Your task to perform on an android device: check data usage Image 0: 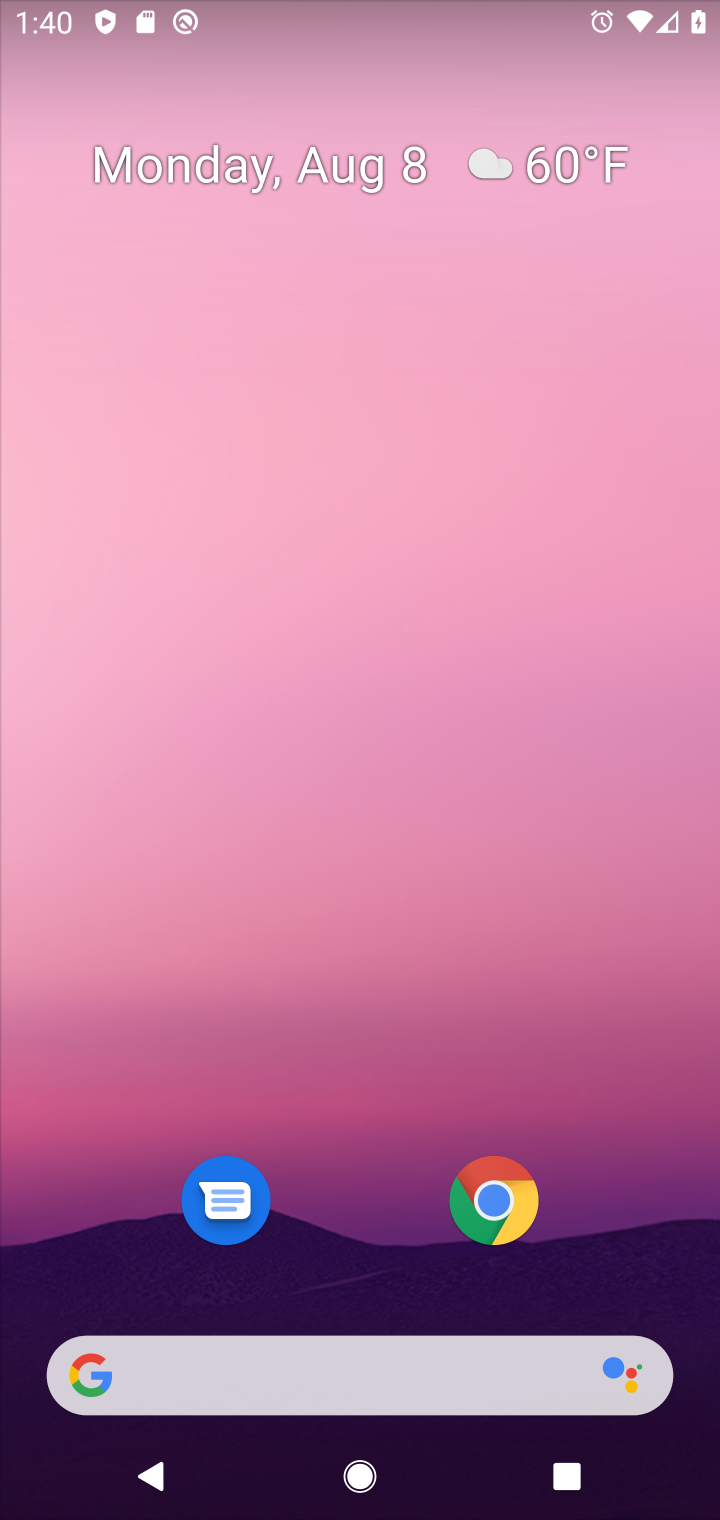
Step 0: press home button
Your task to perform on an android device: check data usage Image 1: 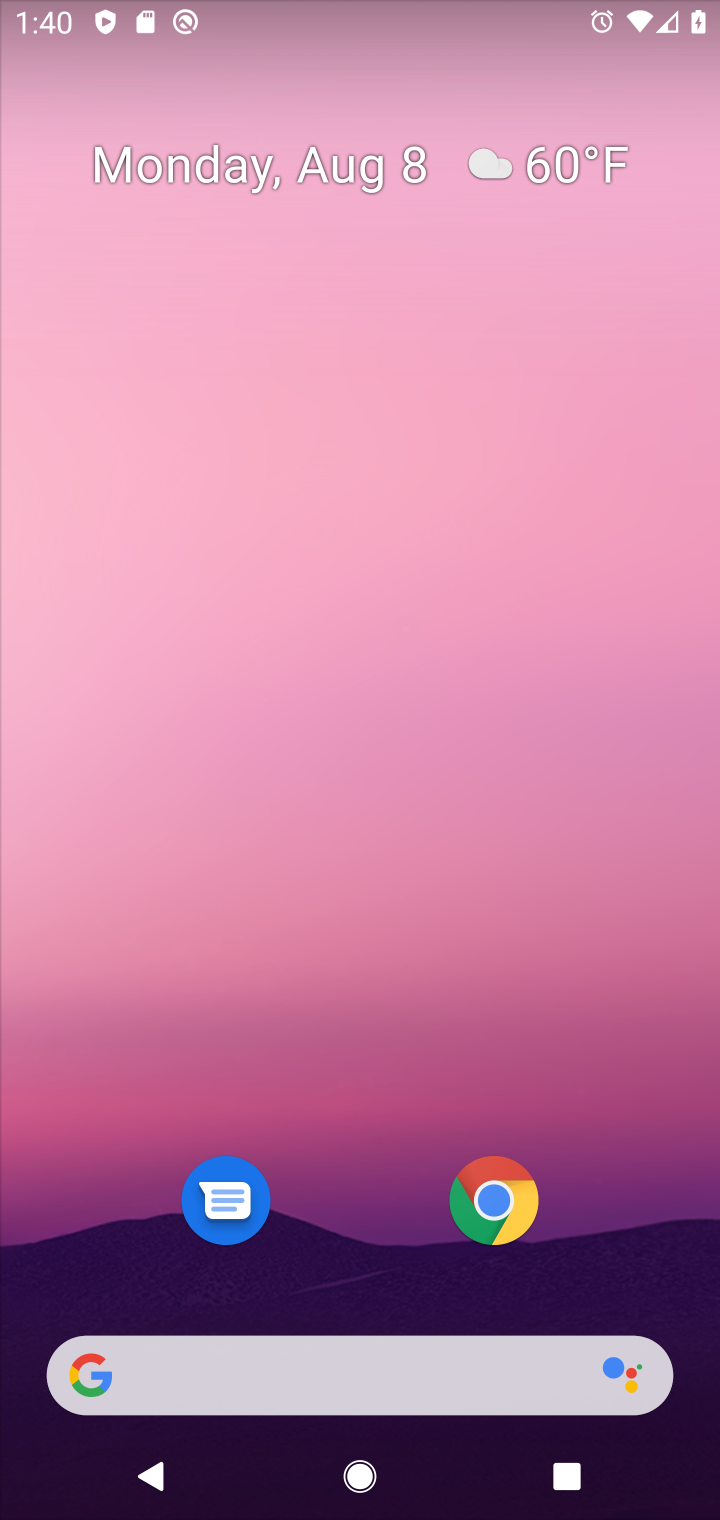
Step 1: drag from (378, 1287) to (411, 1)
Your task to perform on an android device: check data usage Image 2: 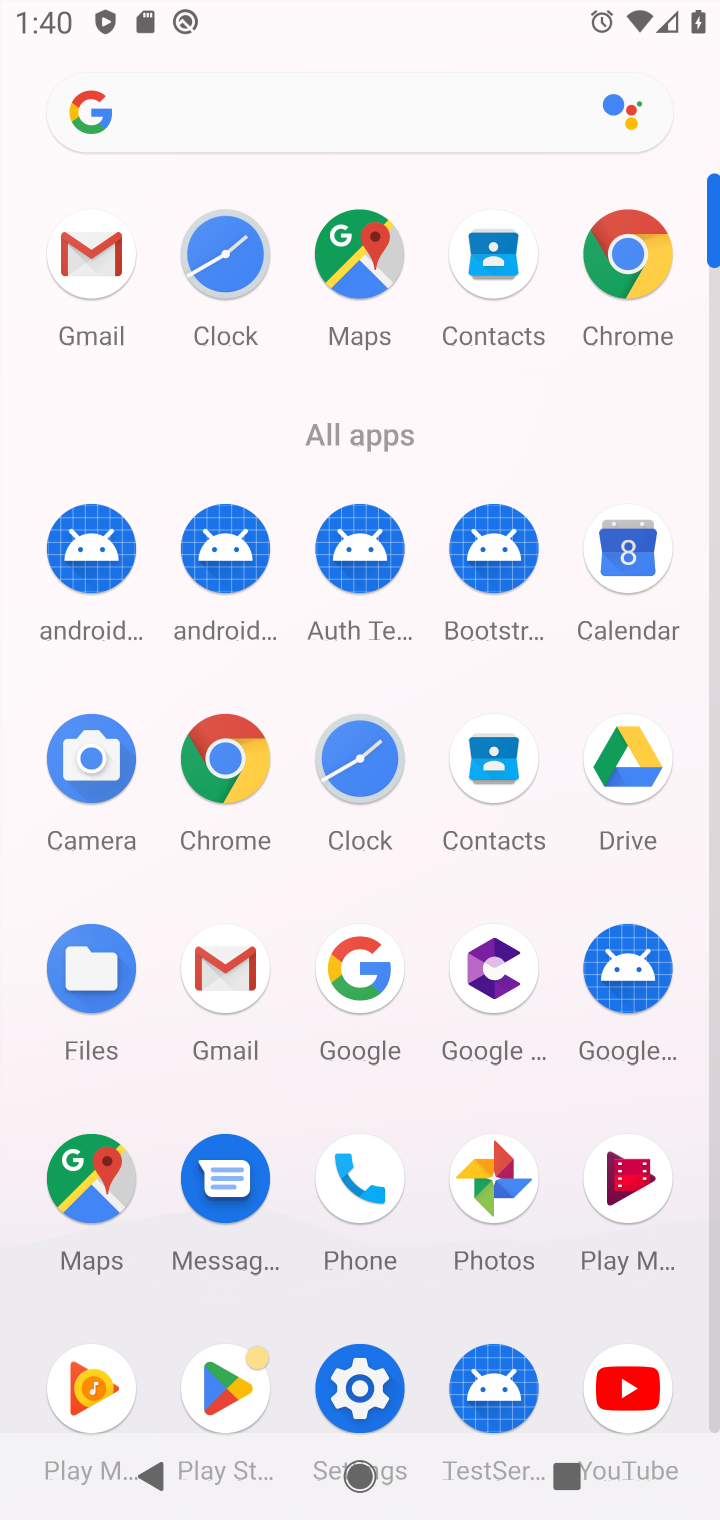
Step 2: click (361, 1366)
Your task to perform on an android device: check data usage Image 3: 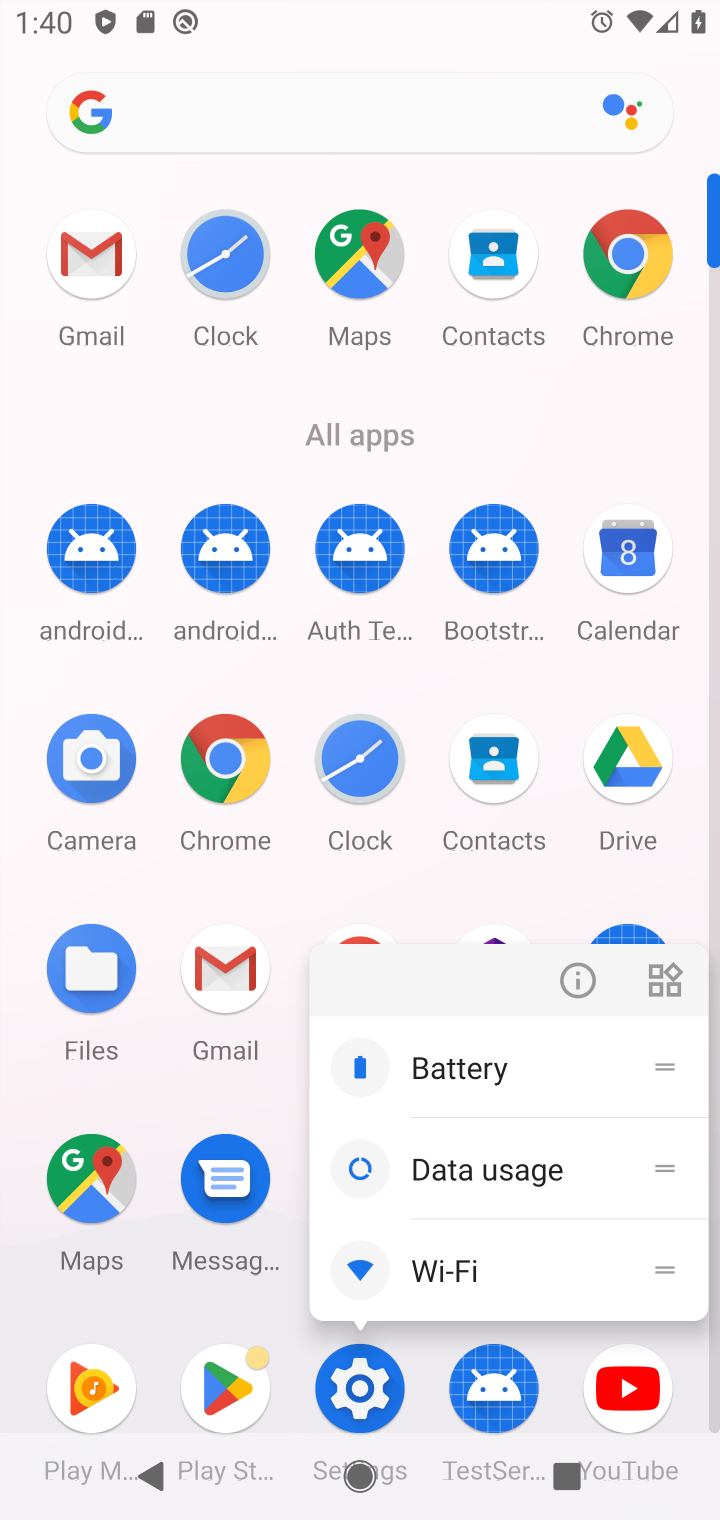
Step 3: click (367, 1383)
Your task to perform on an android device: check data usage Image 4: 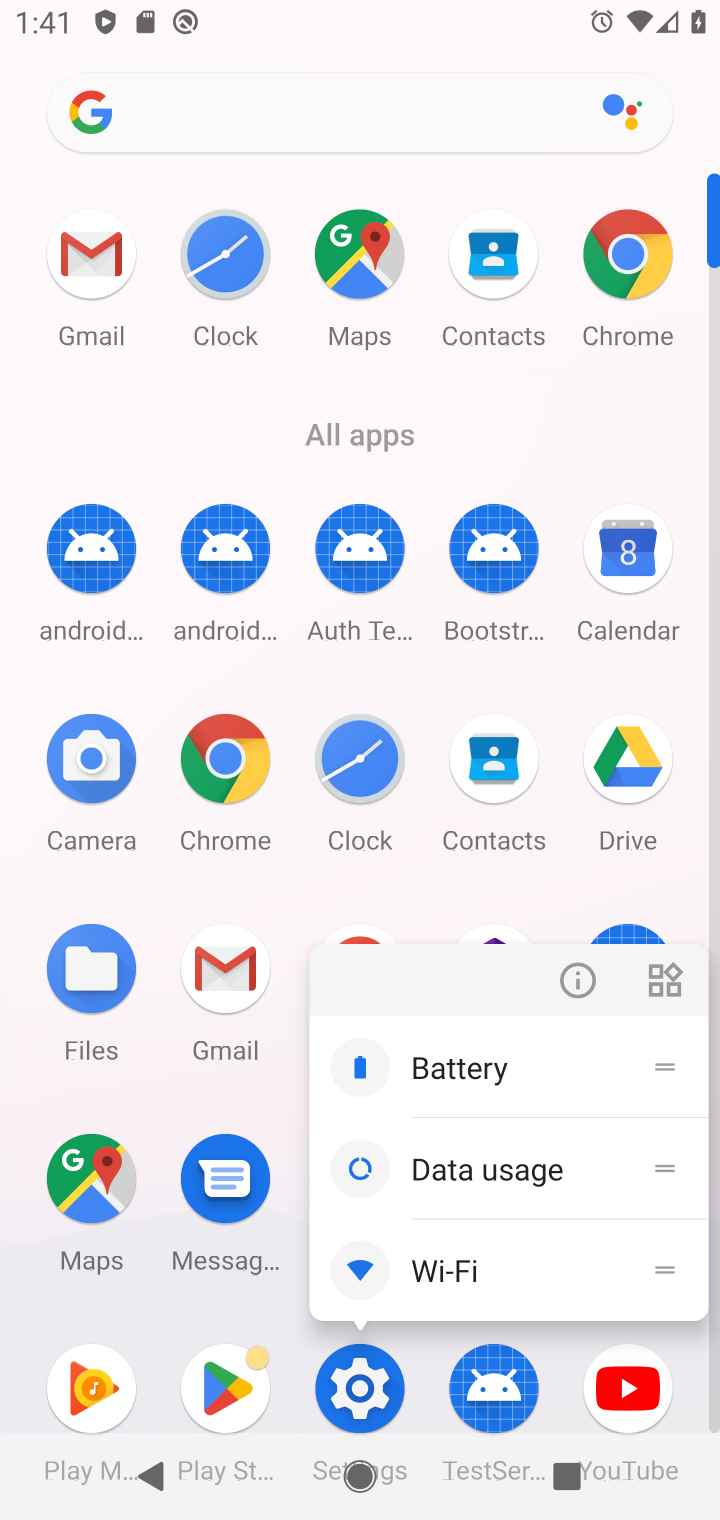
Step 4: click (364, 1373)
Your task to perform on an android device: check data usage Image 5: 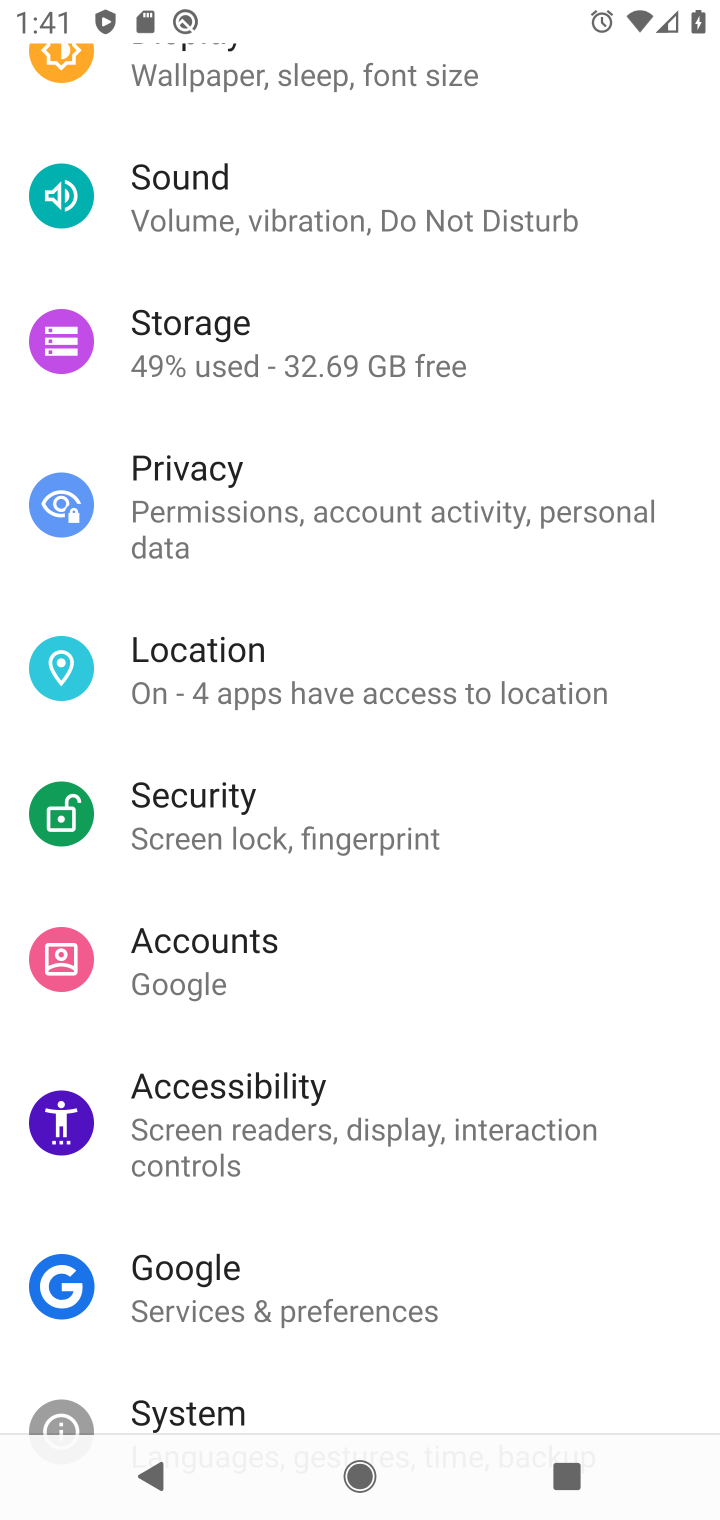
Step 5: drag from (241, 232) to (325, 1418)
Your task to perform on an android device: check data usage Image 6: 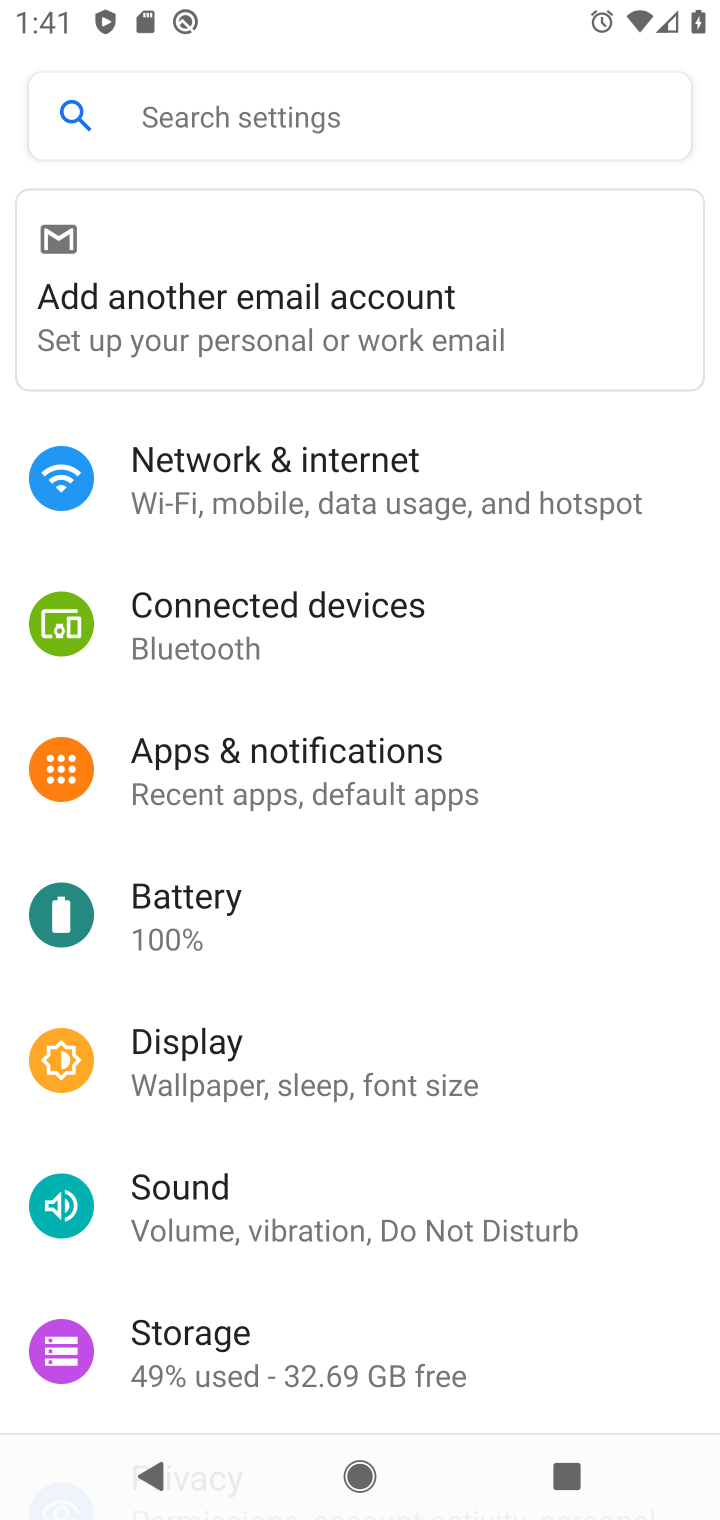
Step 6: click (314, 481)
Your task to perform on an android device: check data usage Image 7: 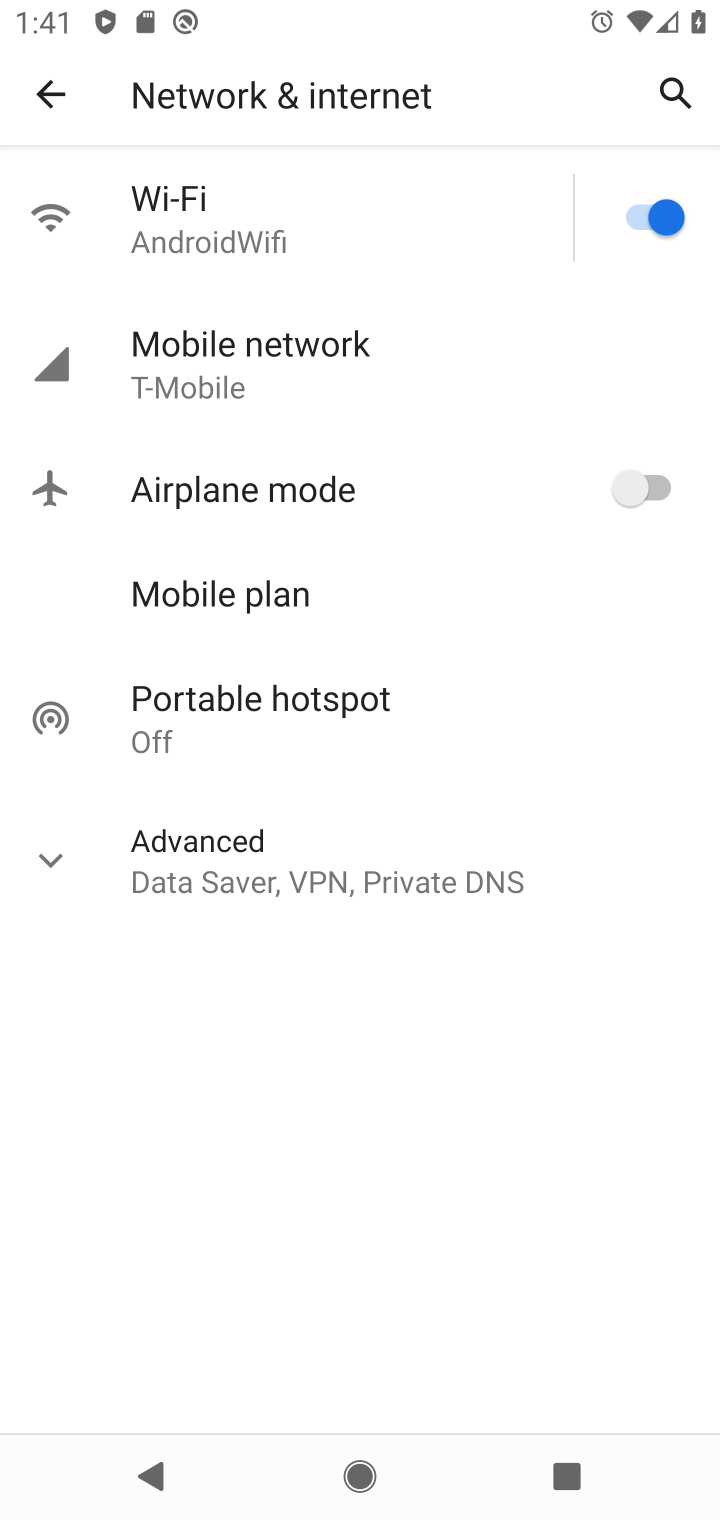
Step 7: click (314, 366)
Your task to perform on an android device: check data usage Image 8: 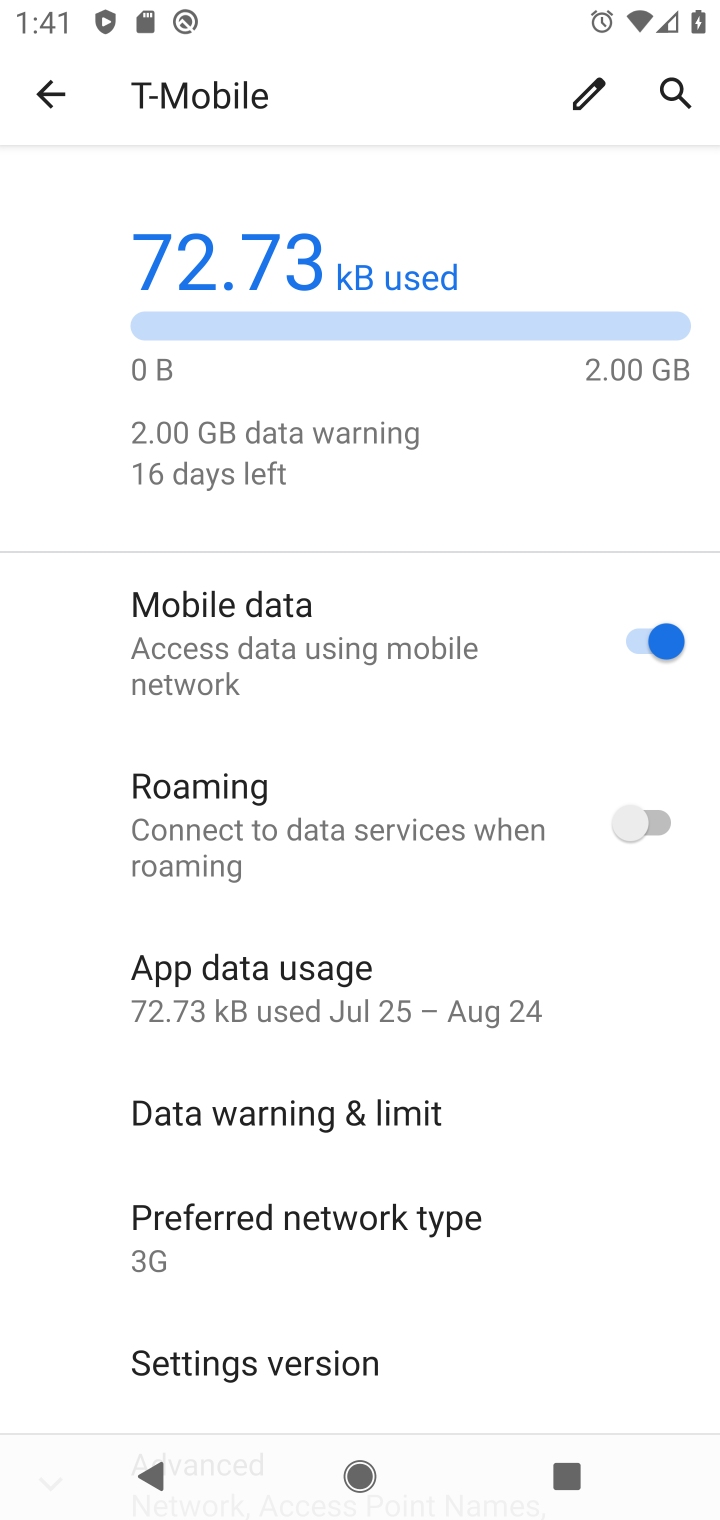
Step 8: click (396, 976)
Your task to perform on an android device: check data usage Image 9: 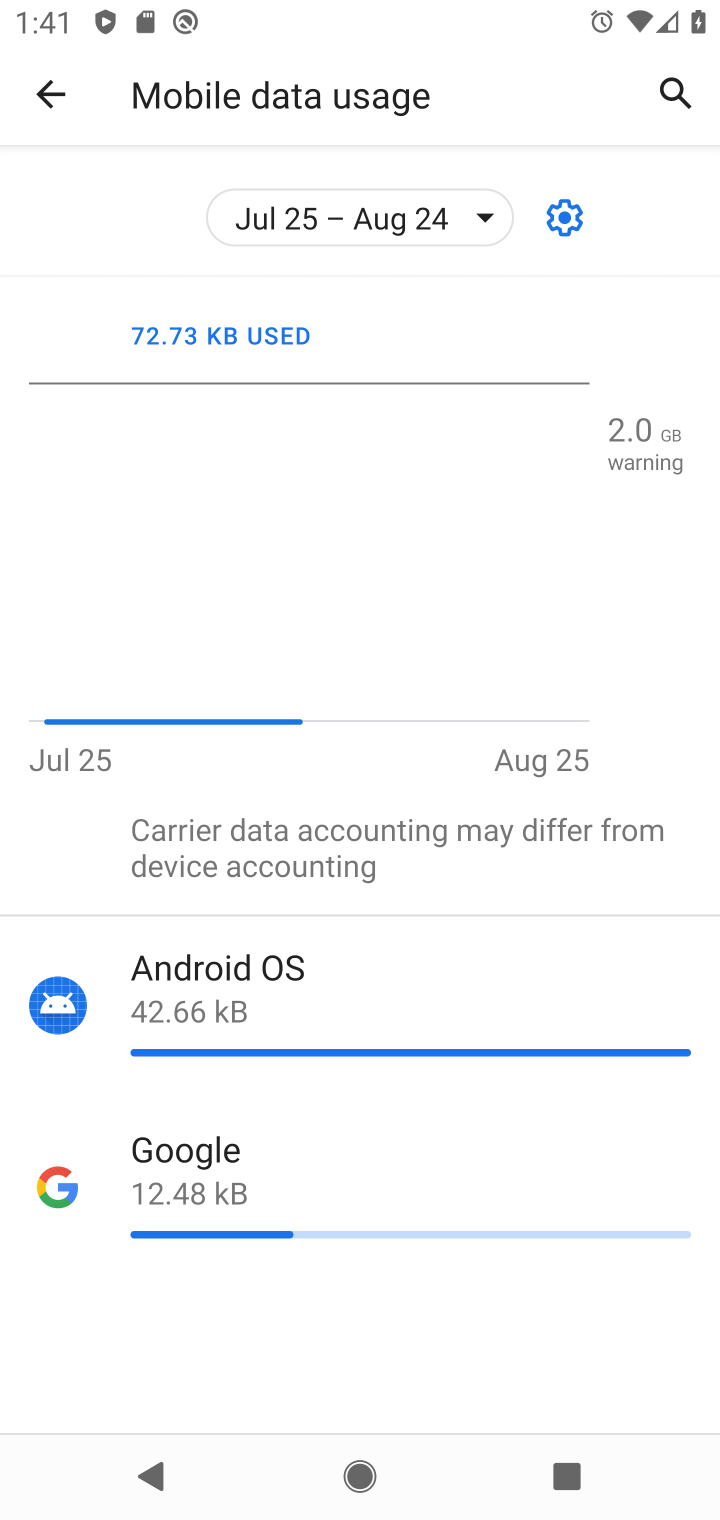
Step 9: task complete